Your task to perform on an android device: turn off javascript in the chrome app Image 0: 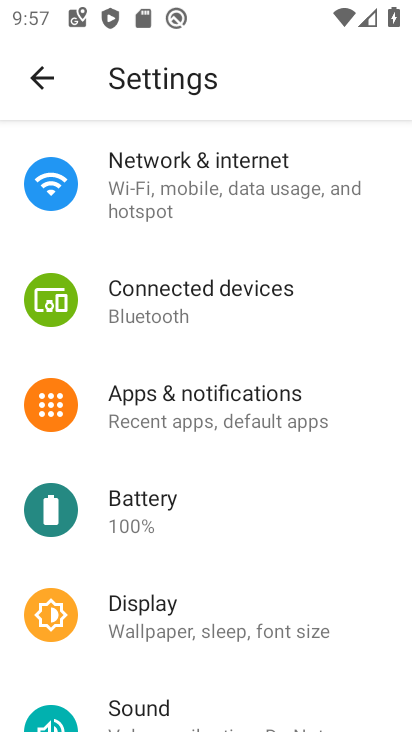
Step 0: press home button
Your task to perform on an android device: turn off javascript in the chrome app Image 1: 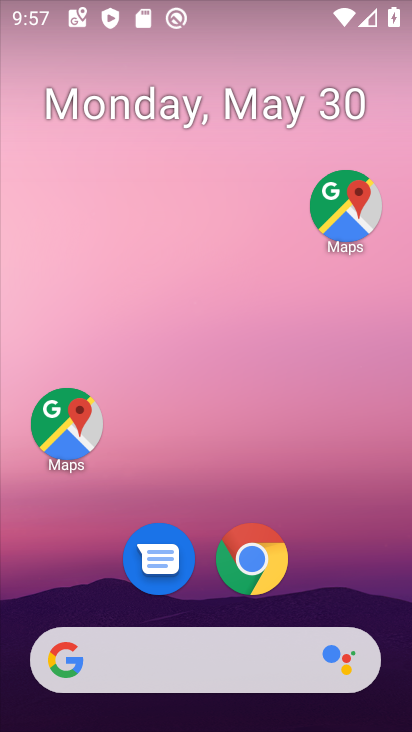
Step 1: click (255, 559)
Your task to perform on an android device: turn off javascript in the chrome app Image 2: 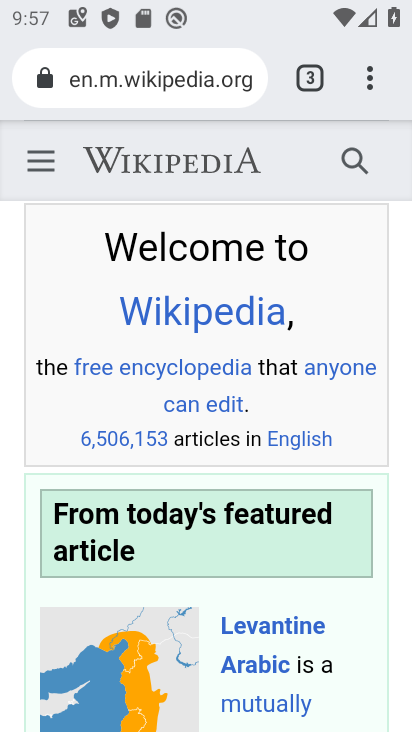
Step 2: drag from (376, 77) to (232, 608)
Your task to perform on an android device: turn off javascript in the chrome app Image 3: 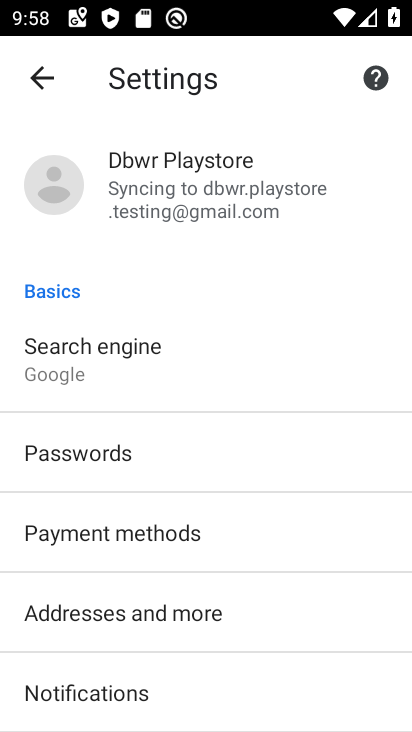
Step 3: drag from (245, 574) to (268, 132)
Your task to perform on an android device: turn off javascript in the chrome app Image 4: 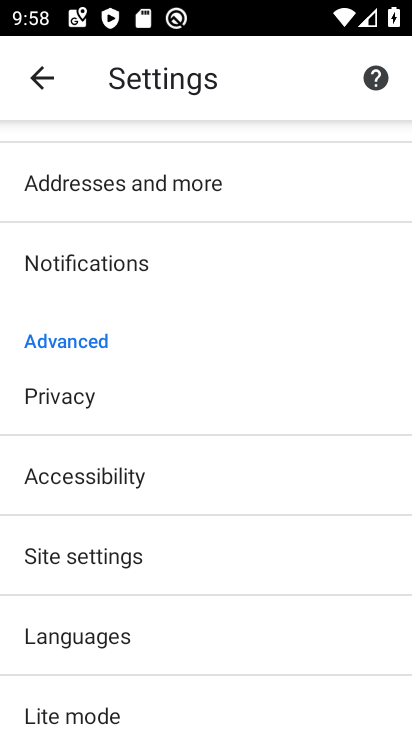
Step 4: drag from (188, 606) to (234, 285)
Your task to perform on an android device: turn off javascript in the chrome app Image 5: 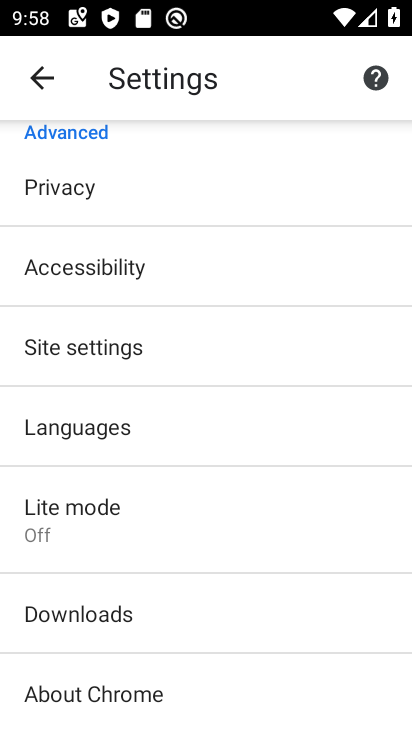
Step 5: click (82, 341)
Your task to perform on an android device: turn off javascript in the chrome app Image 6: 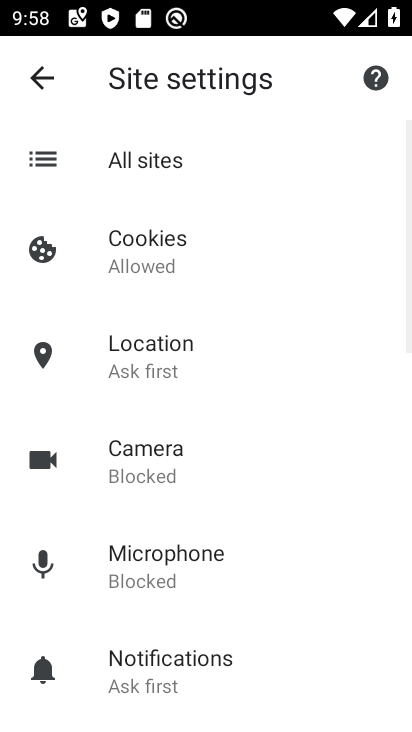
Step 6: drag from (297, 615) to (256, 93)
Your task to perform on an android device: turn off javascript in the chrome app Image 7: 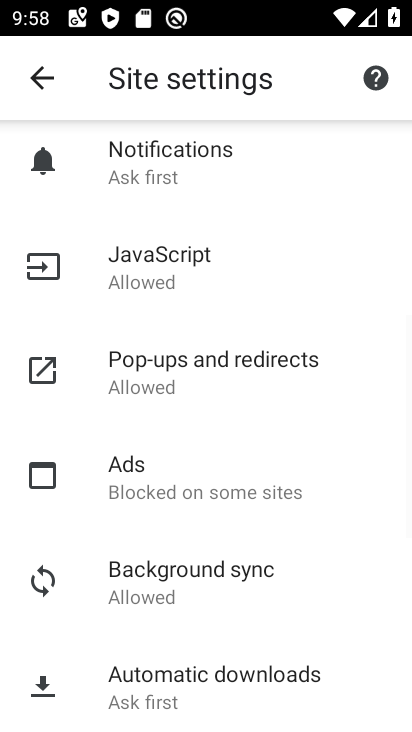
Step 7: click (181, 268)
Your task to perform on an android device: turn off javascript in the chrome app Image 8: 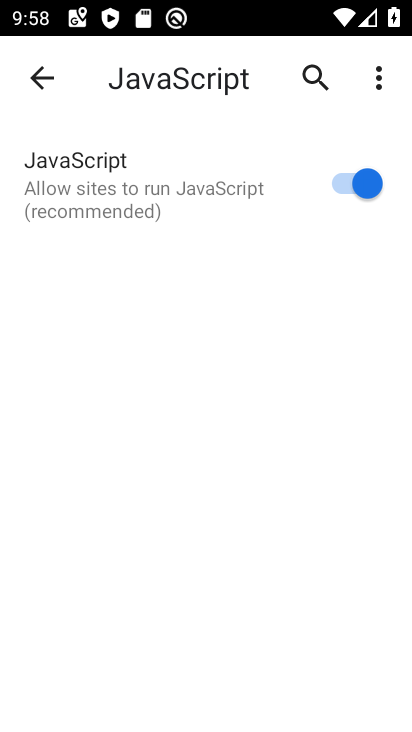
Step 8: click (322, 182)
Your task to perform on an android device: turn off javascript in the chrome app Image 9: 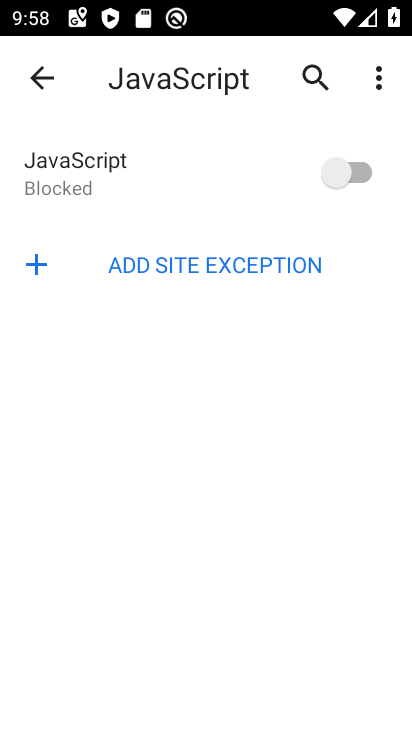
Step 9: task complete